Your task to perform on an android device: turn off javascript in the chrome app Image 0: 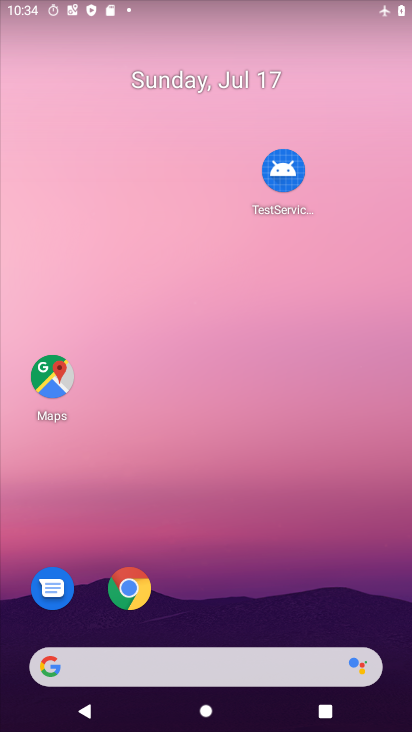
Step 0: drag from (241, 604) to (297, 136)
Your task to perform on an android device: turn off javascript in the chrome app Image 1: 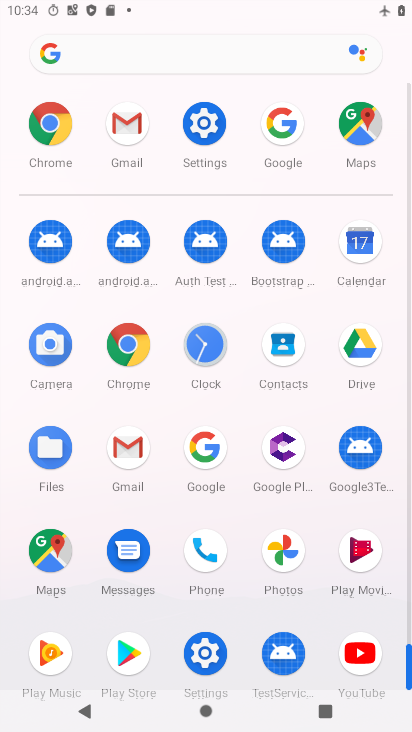
Step 1: click (143, 361)
Your task to perform on an android device: turn off javascript in the chrome app Image 2: 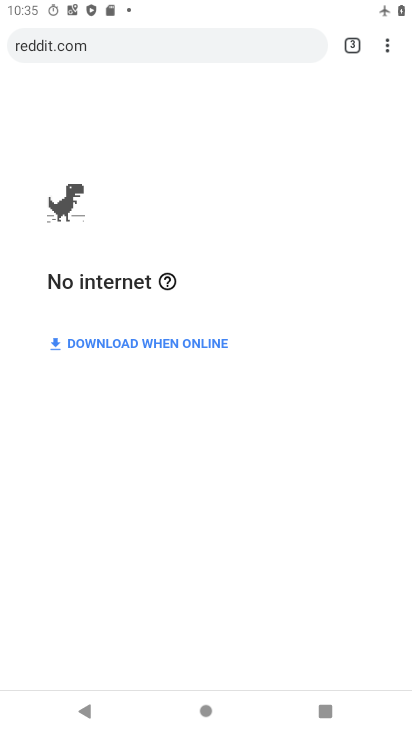
Step 2: click (383, 51)
Your task to perform on an android device: turn off javascript in the chrome app Image 3: 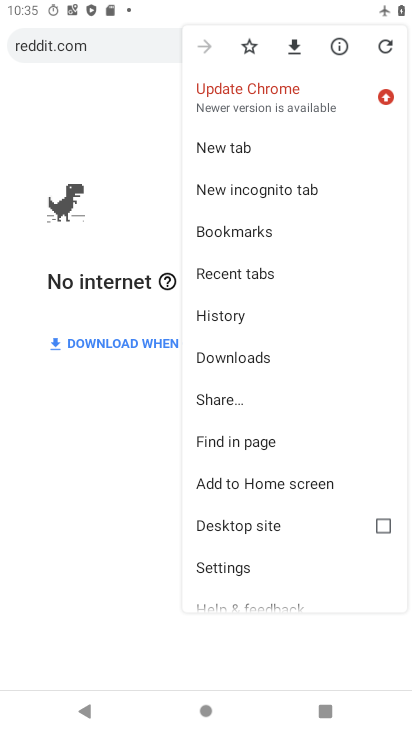
Step 3: click (244, 564)
Your task to perform on an android device: turn off javascript in the chrome app Image 4: 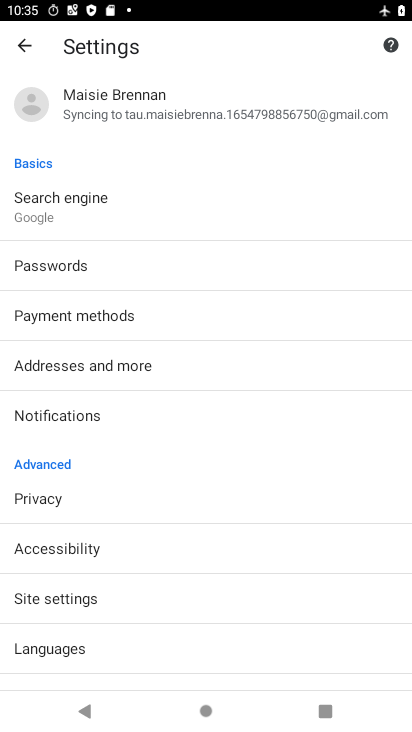
Step 4: drag from (160, 575) to (244, 229)
Your task to perform on an android device: turn off javascript in the chrome app Image 5: 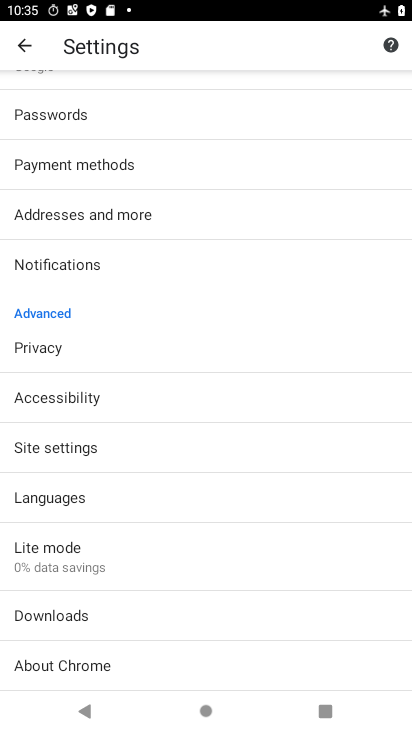
Step 5: drag from (163, 526) to (203, 328)
Your task to perform on an android device: turn off javascript in the chrome app Image 6: 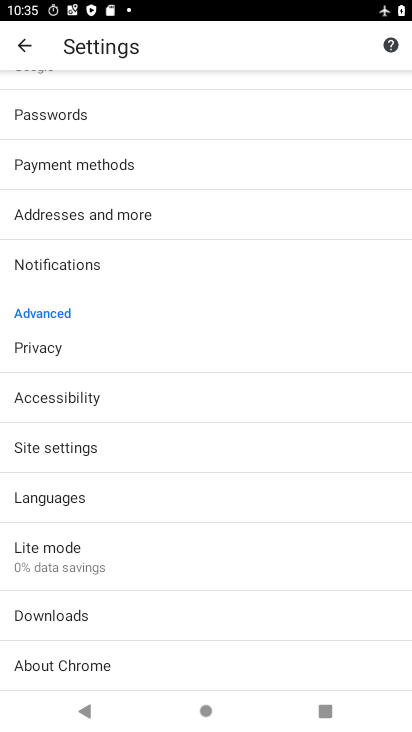
Step 6: click (94, 451)
Your task to perform on an android device: turn off javascript in the chrome app Image 7: 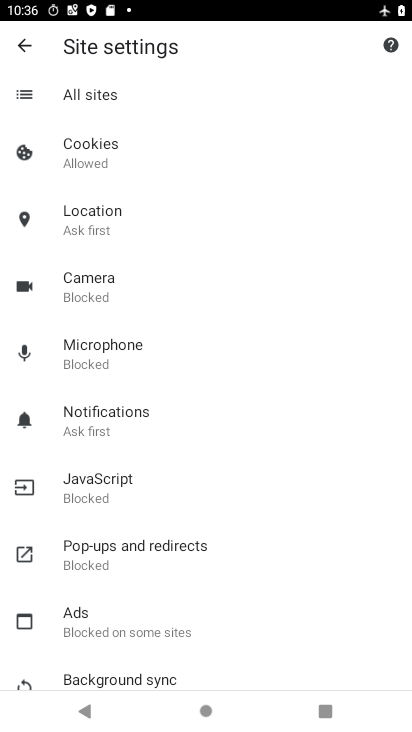
Step 7: drag from (148, 594) to (183, 439)
Your task to perform on an android device: turn off javascript in the chrome app Image 8: 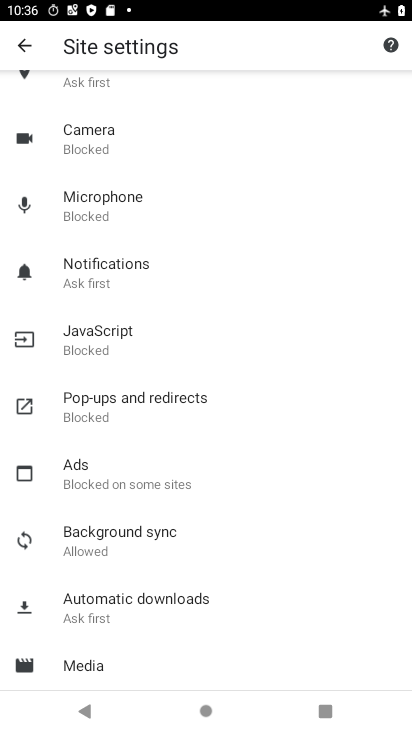
Step 8: click (148, 334)
Your task to perform on an android device: turn off javascript in the chrome app Image 9: 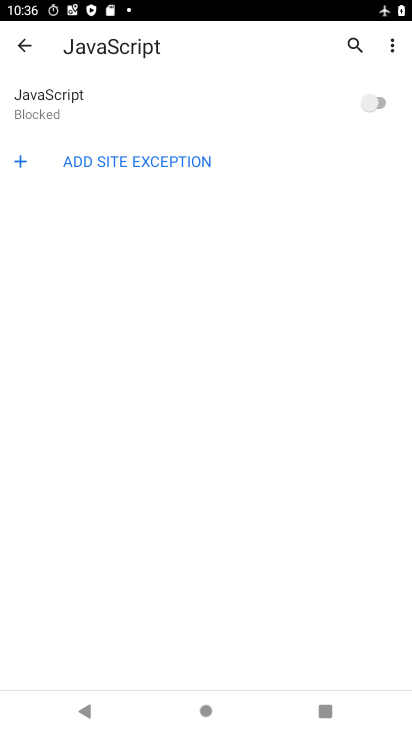
Step 9: task complete